Your task to perform on an android device: Go to ESPN.com Image 0: 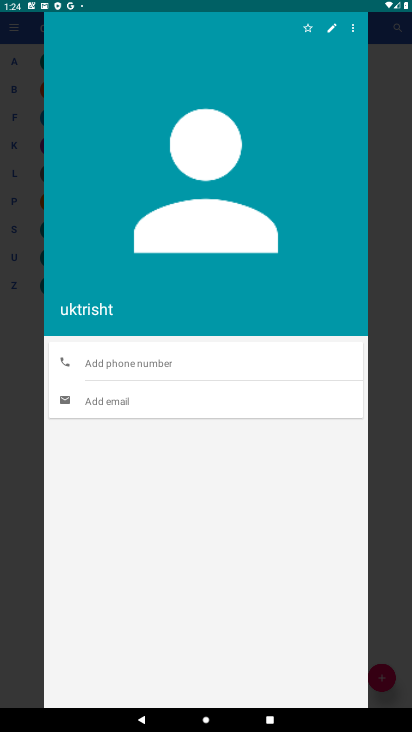
Step 0: press home button
Your task to perform on an android device: Go to ESPN.com Image 1: 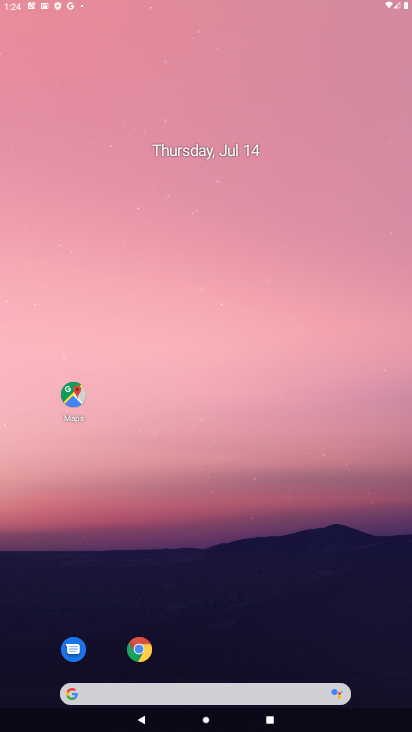
Step 1: drag from (366, 654) to (173, 52)
Your task to perform on an android device: Go to ESPN.com Image 2: 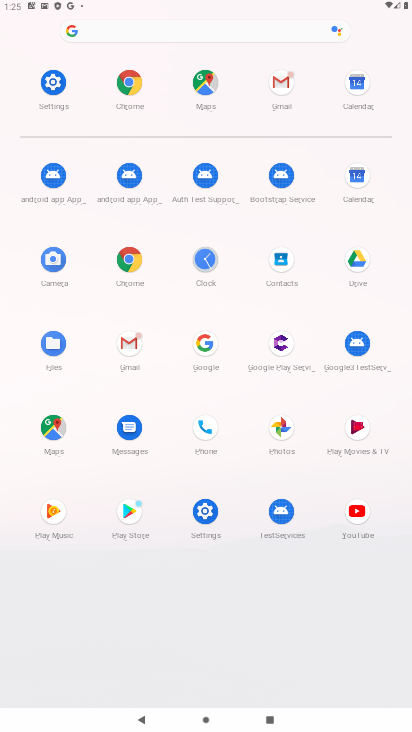
Step 2: click (198, 354)
Your task to perform on an android device: Go to ESPN.com Image 3: 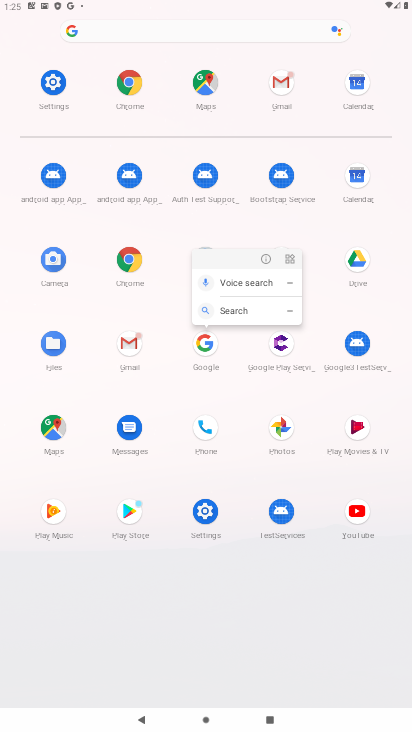
Step 3: click (198, 354)
Your task to perform on an android device: Go to ESPN.com Image 4: 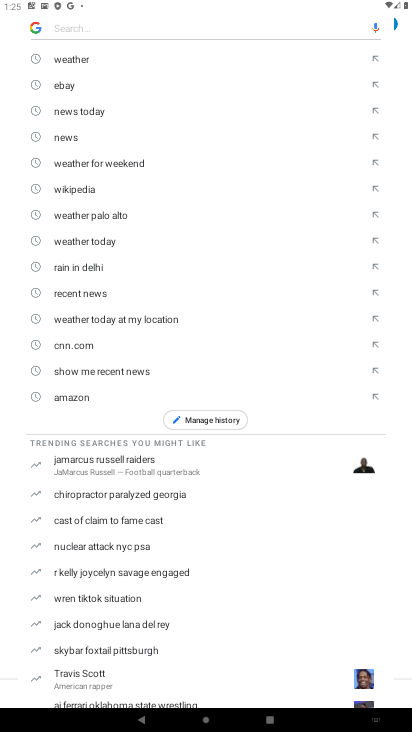
Step 4: type "espn.com"
Your task to perform on an android device: Go to ESPN.com Image 5: 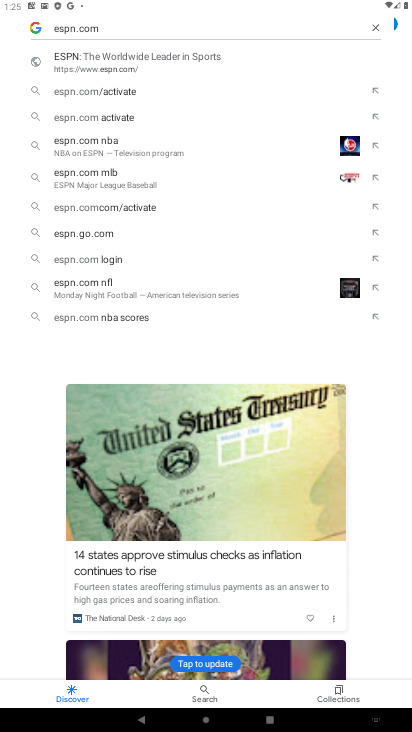
Step 5: click (115, 60)
Your task to perform on an android device: Go to ESPN.com Image 6: 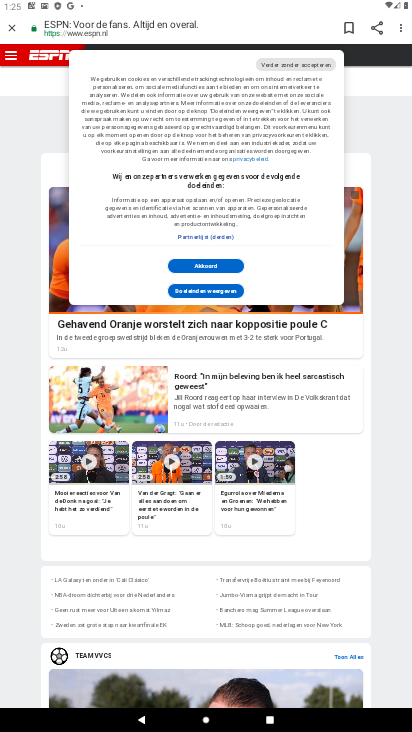
Step 6: task complete